Your task to perform on an android device: change alarm snooze length Image 0: 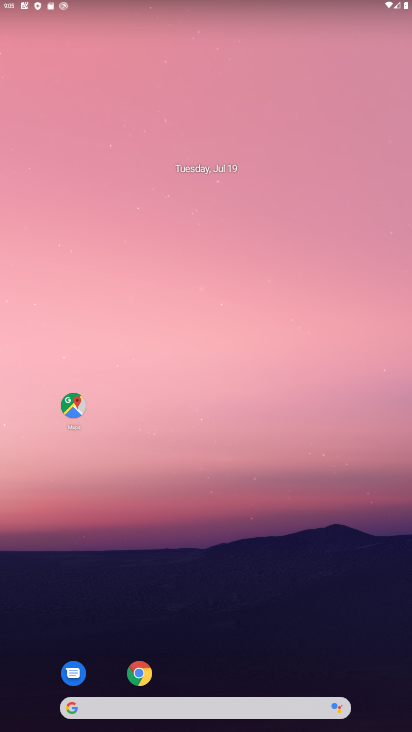
Step 0: drag from (199, 657) to (160, 163)
Your task to perform on an android device: change alarm snooze length Image 1: 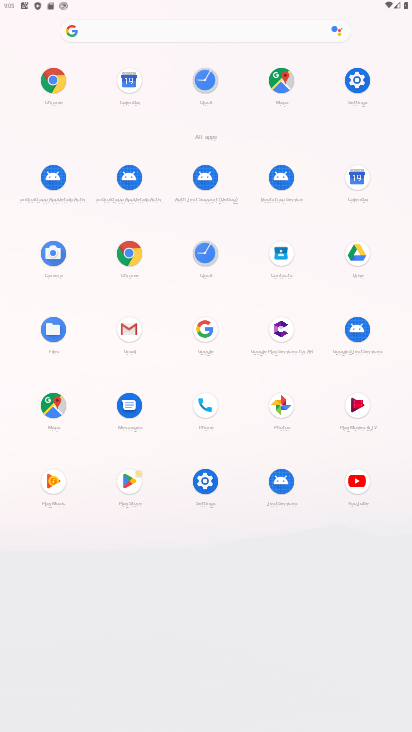
Step 1: click (363, 91)
Your task to perform on an android device: change alarm snooze length Image 2: 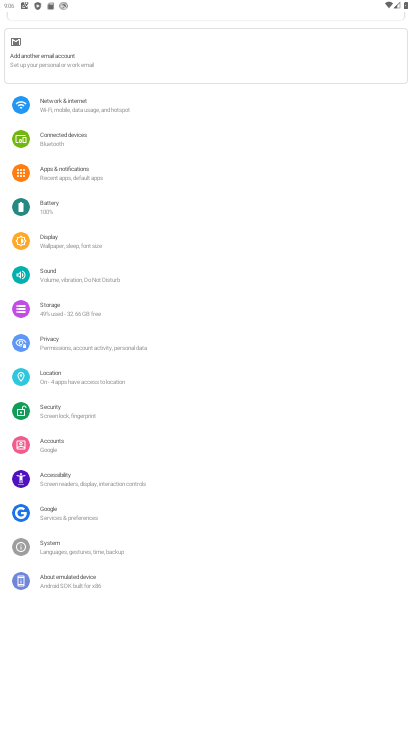
Step 2: press home button
Your task to perform on an android device: change alarm snooze length Image 3: 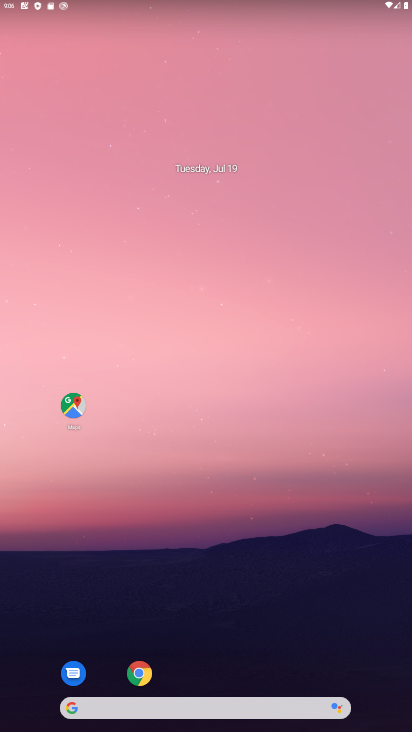
Step 3: drag from (208, 657) to (234, 127)
Your task to perform on an android device: change alarm snooze length Image 4: 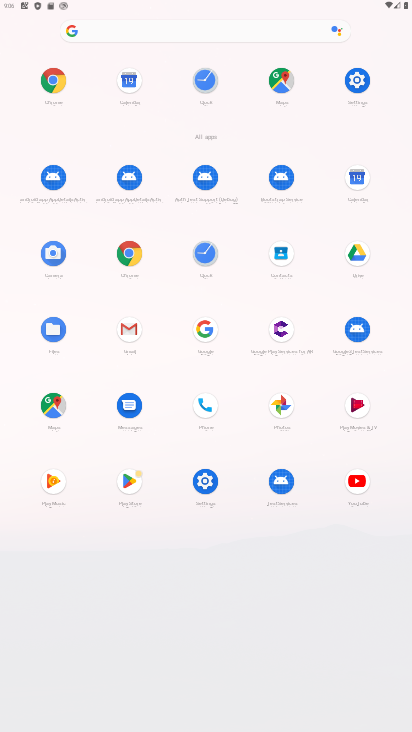
Step 4: click (214, 260)
Your task to perform on an android device: change alarm snooze length Image 5: 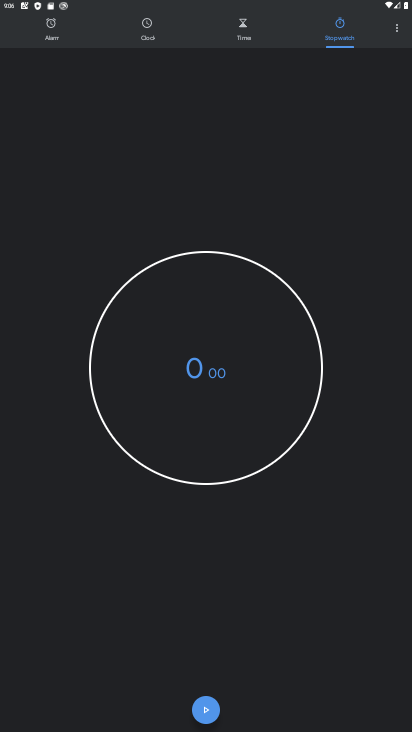
Step 5: click (397, 29)
Your task to perform on an android device: change alarm snooze length Image 6: 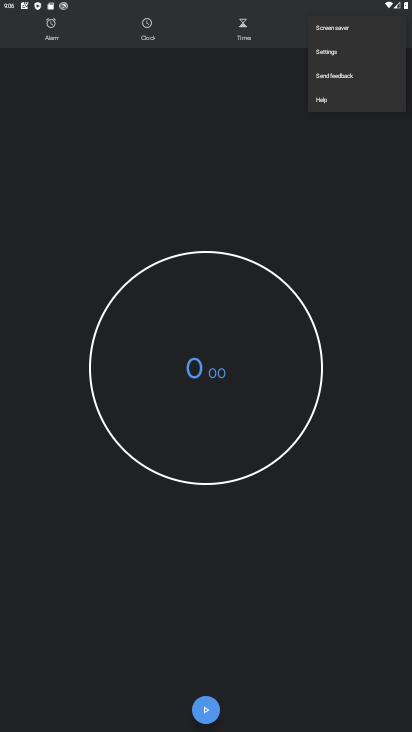
Step 6: click (348, 58)
Your task to perform on an android device: change alarm snooze length Image 7: 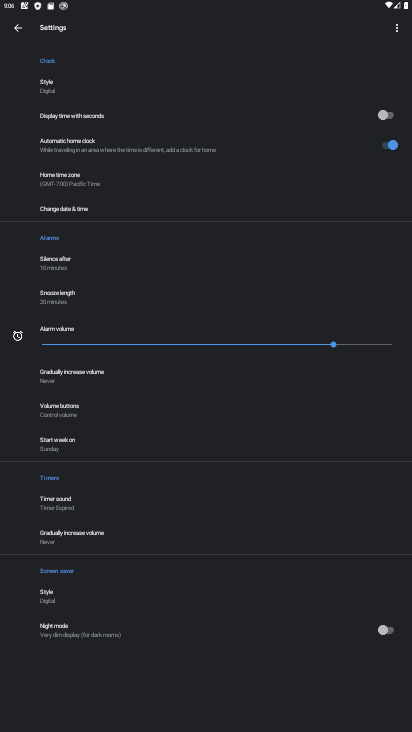
Step 7: click (86, 303)
Your task to perform on an android device: change alarm snooze length Image 8: 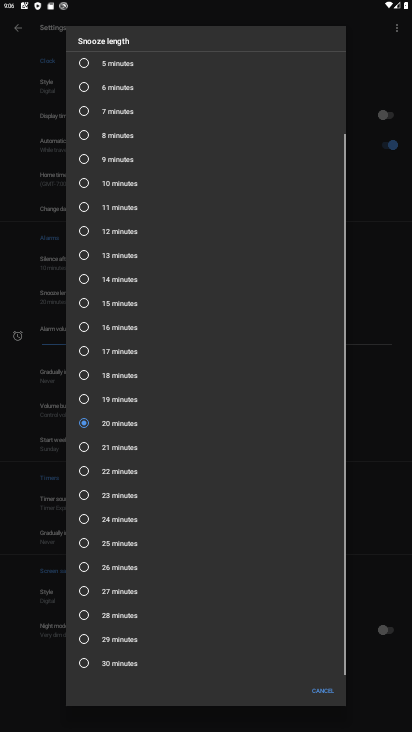
Step 8: click (130, 446)
Your task to perform on an android device: change alarm snooze length Image 9: 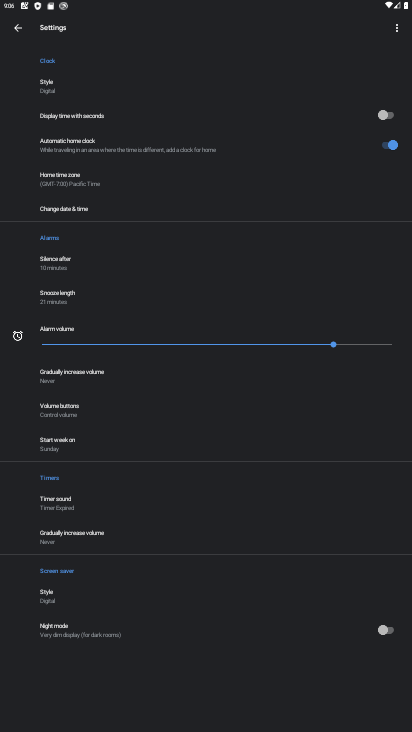
Step 9: task complete